Your task to perform on an android device: change timer sound Image 0: 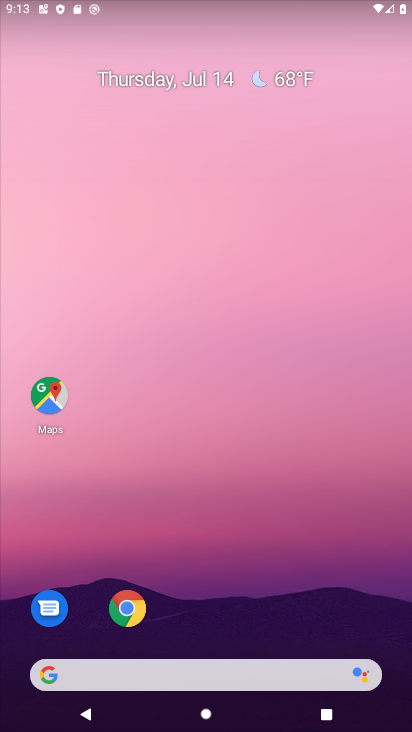
Step 0: drag from (195, 662) to (190, 2)
Your task to perform on an android device: change timer sound Image 1: 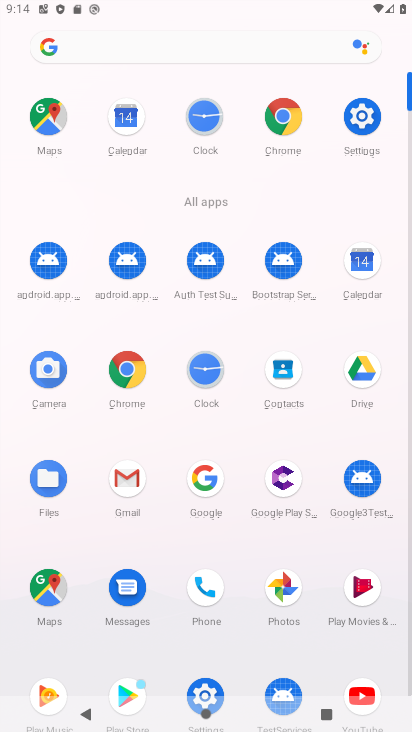
Step 1: click (213, 376)
Your task to perform on an android device: change timer sound Image 2: 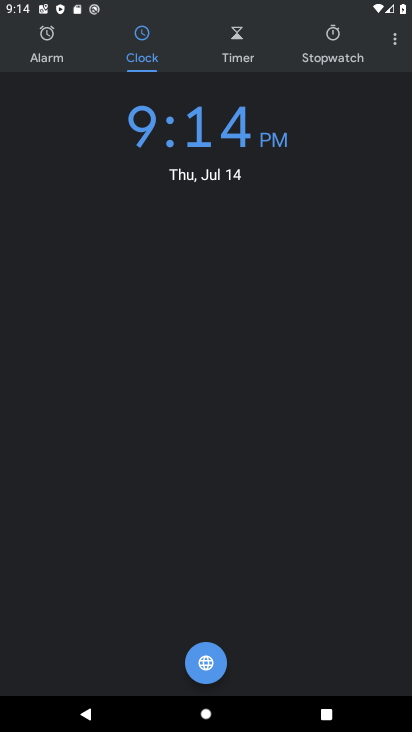
Step 2: click (393, 38)
Your task to perform on an android device: change timer sound Image 3: 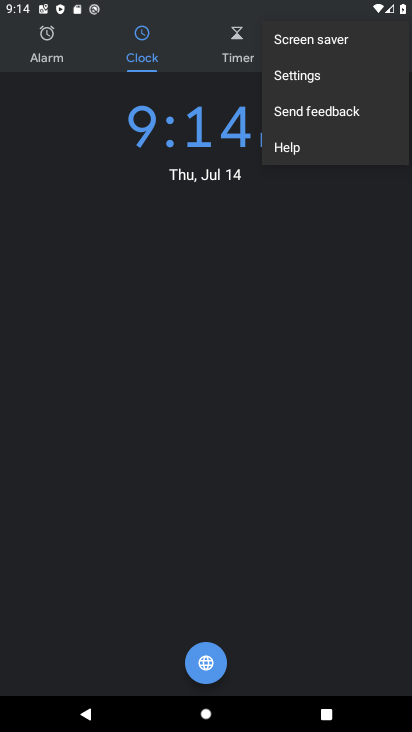
Step 3: click (277, 72)
Your task to perform on an android device: change timer sound Image 4: 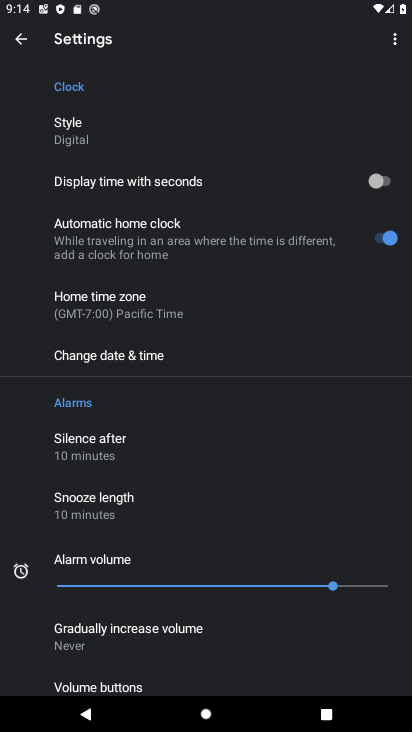
Step 4: drag from (152, 515) to (219, 129)
Your task to perform on an android device: change timer sound Image 5: 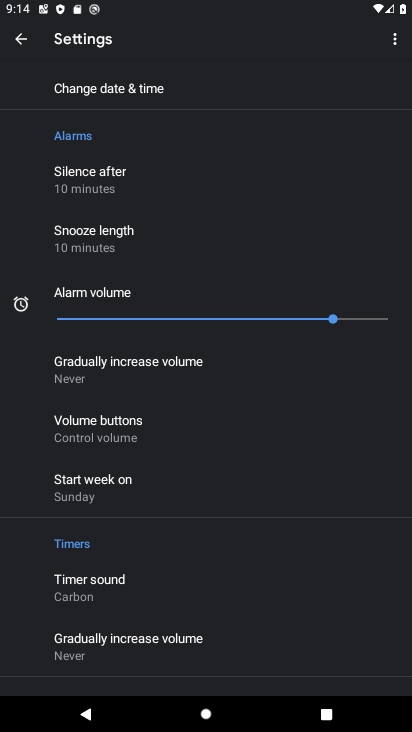
Step 5: click (113, 591)
Your task to perform on an android device: change timer sound Image 6: 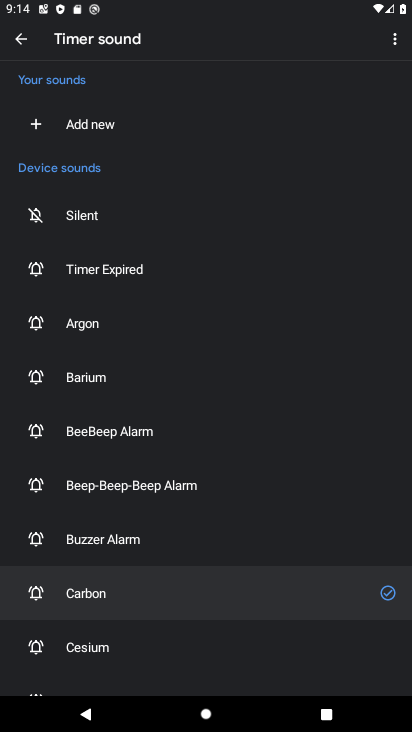
Step 6: click (110, 277)
Your task to perform on an android device: change timer sound Image 7: 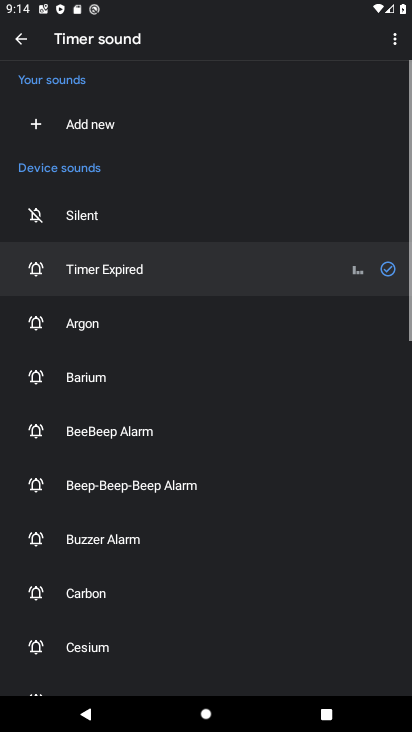
Step 7: task complete